Your task to perform on an android device: turn on javascript in the chrome app Image 0: 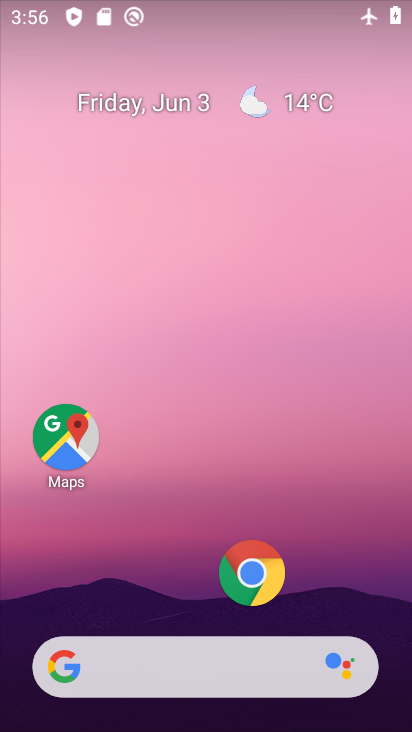
Step 0: drag from (207, 562) to (203, 454)
Your task to perform on an android device: turn on javascript in the chrome app Image 1: 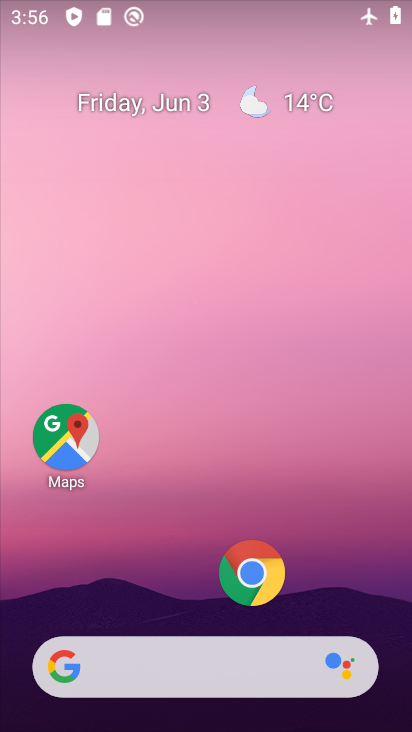
Step 1: click (238, 562)
Your task to perform on an android device: turn on javascript in the chrome app Image 2: 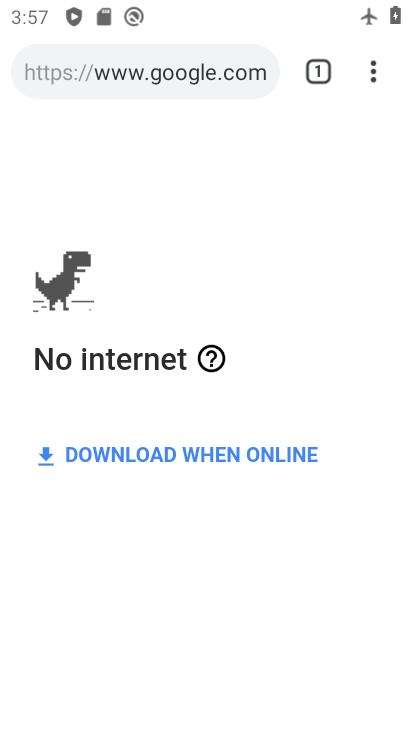
Step 2: click (376, 74)
Your task to perform on an android device: turn on javascript in the chrome app Image 3: 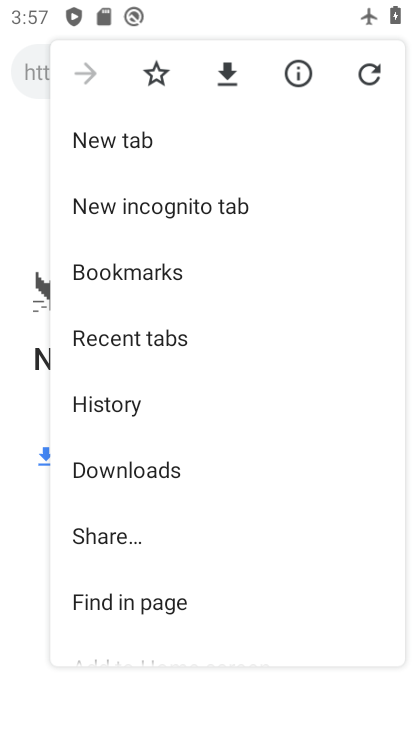
Step 3: drag from (161, 485) to (197, 257)
Your task to perform on an android device: turn on javascript in the chrome app Image 4: 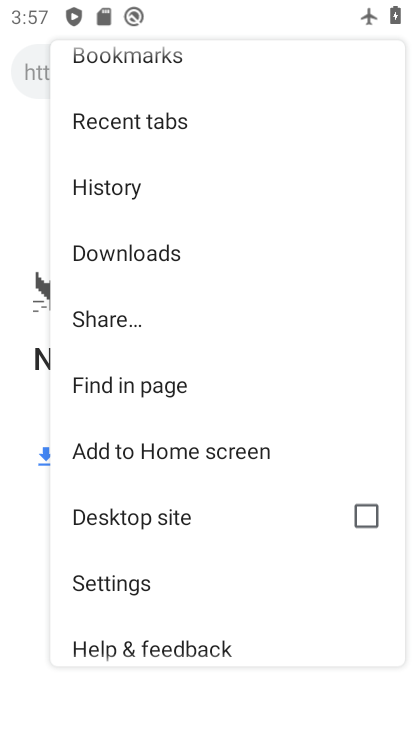
Step 4: click (138, 584)
Your task to perform on an android device: turn on javascript in the chrome app Image 5: 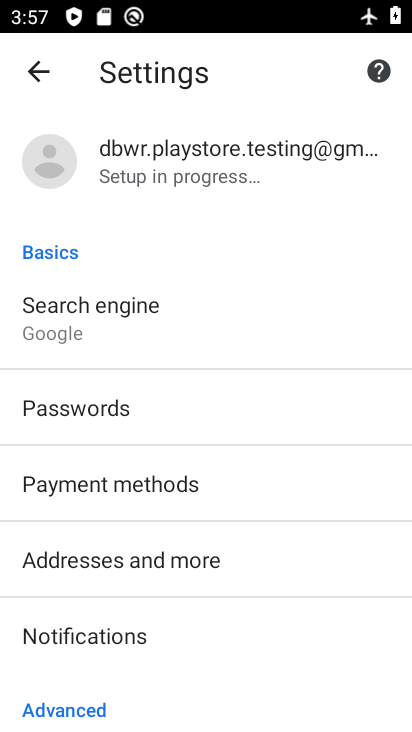
Step 5: drag from (135, 512) to (135, 359)
Your task to perform on an android device: turn on javascript in the chrome app Image 6: 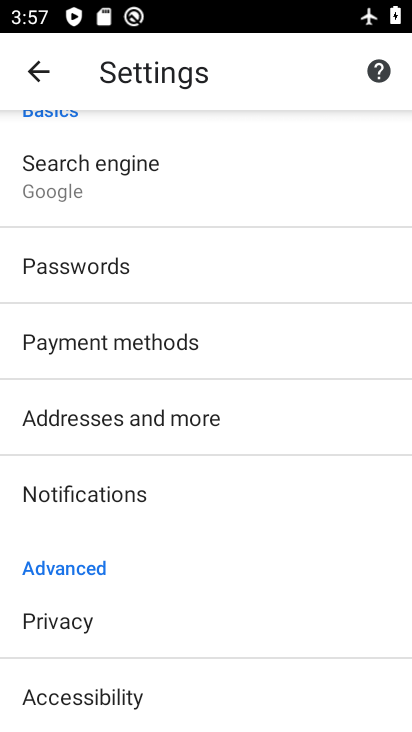
Step 6: drag from (124, 587) to (159, 296)
Your task to perform on an android device: turn on javascript in the chrome app Image 7: 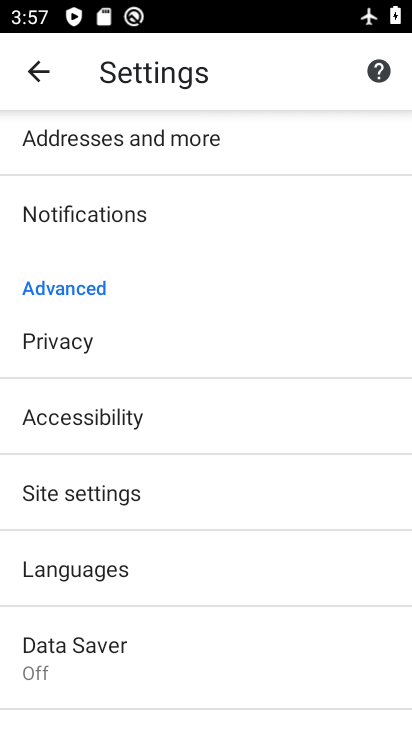
Step 7: click (99, 486)
Your task to perform on an android device: turn on javascript in the chrome app Image 8: 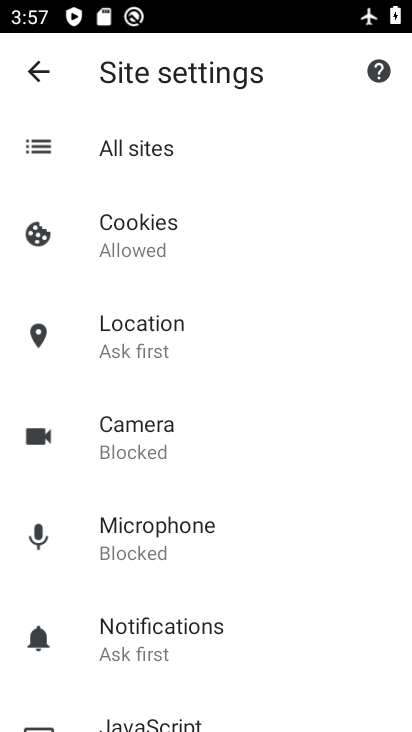
Step 8: drag from (143, 448) to (142, 244)
Your task to perform on an android device: turn on javascript in the chrome app Image 9: 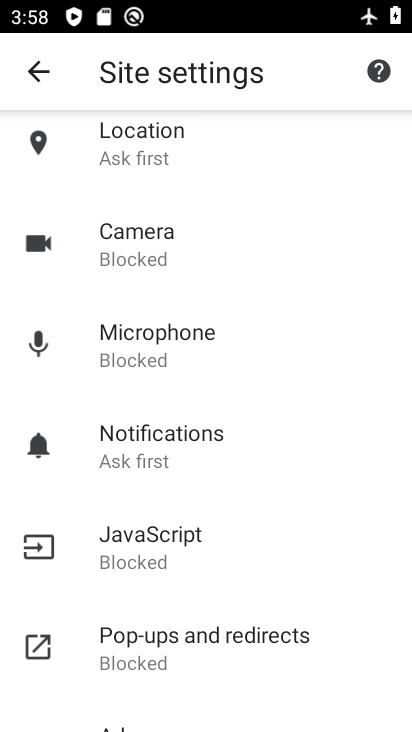
Step 9: click (152, 555)
Your task to perform on an android device: turn on javascript in the chrome app Image 10: 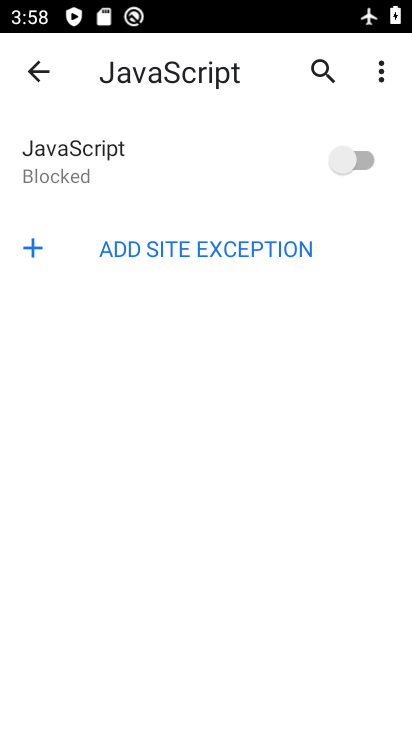
Step 10: click (296, 156)
Your task to perform on an android device: turn on javascript in the chrome app Image 11: 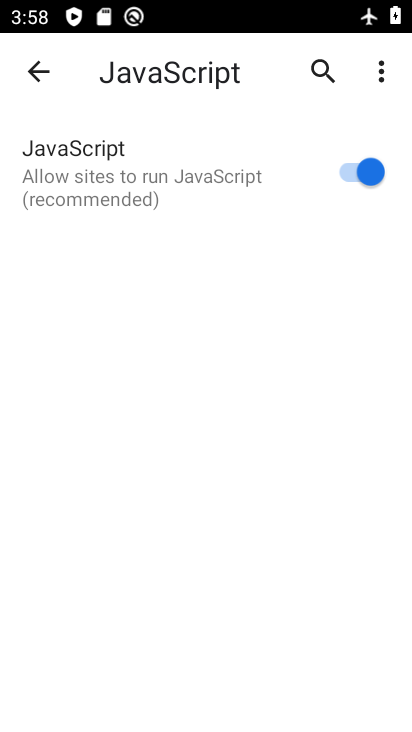
Step 11: task complete